Your task to perform on an android device: Search for pizza restaurants on Maps Image 0: 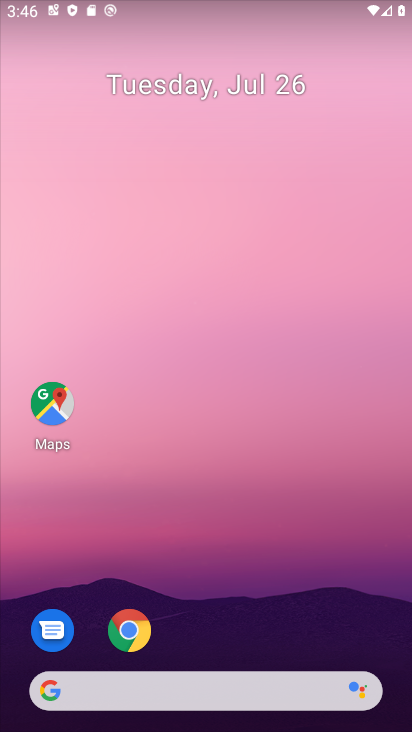
Step 0: click (59, 407)
Your task to perform on an android device: Search for pizza restaurants on Maps Image 1: 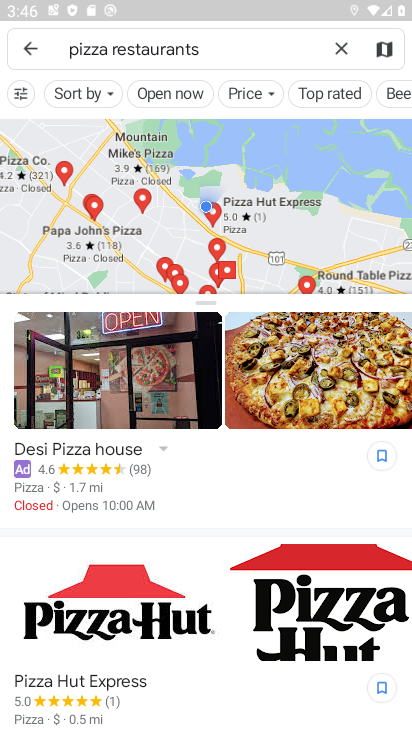
Step 1: task complete